Your task to perform on an android device: Turn off the flashlight Image 0: 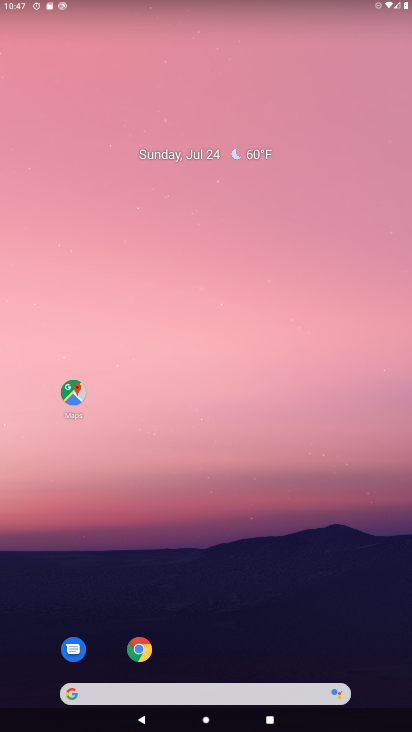
Step 0: drag from (310, 582) to (176, 118)
Your task to perform on an android device: Turn off the flashlight Image 1: 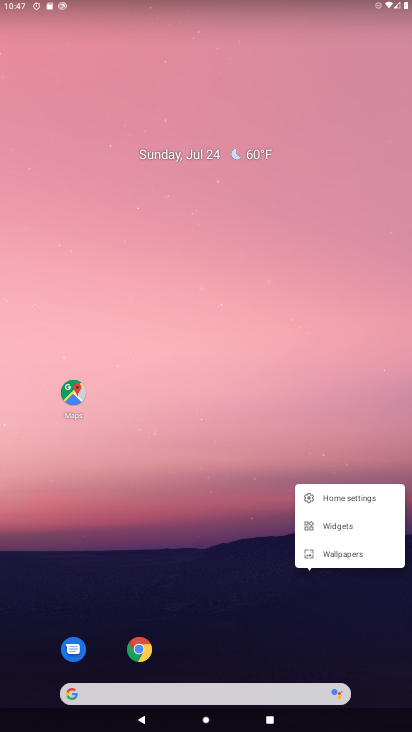
Step 1: click (200, 503)
Your task to perform on an android device: Turn off the flashlight Image 2: 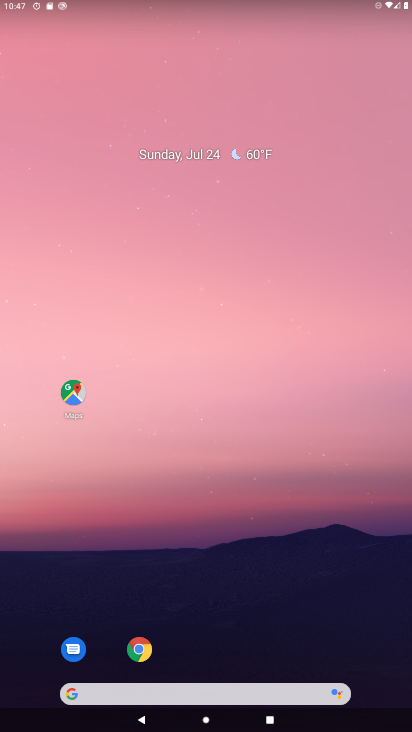
Step 2: click (149, 91)
Your task to perform on an android device: Turn off the flashlight Image 3: 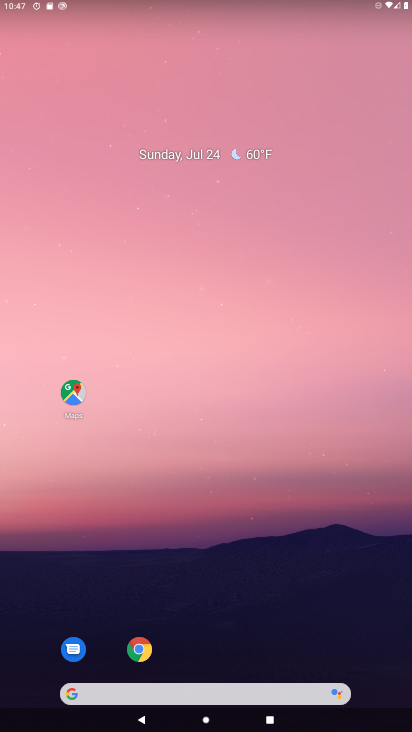
Step 3: drag from (330, 597) to (169, 27)
Your task to perform on an android device: Turn off the flashlight Image 4: 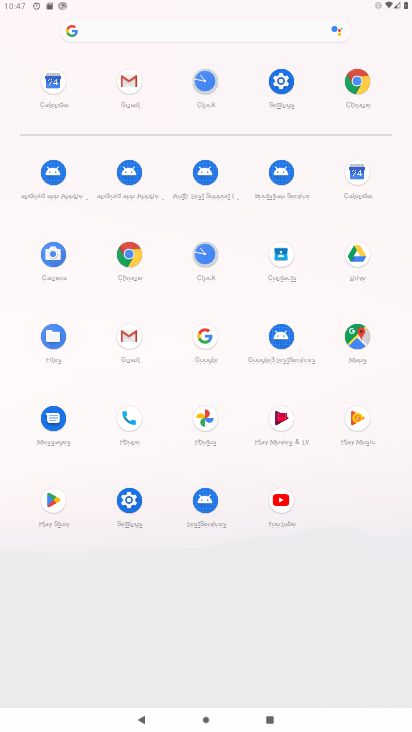
Step 4: click (286, 84)
Your task to perform on an android device: Turn off the flashlight Image 5: 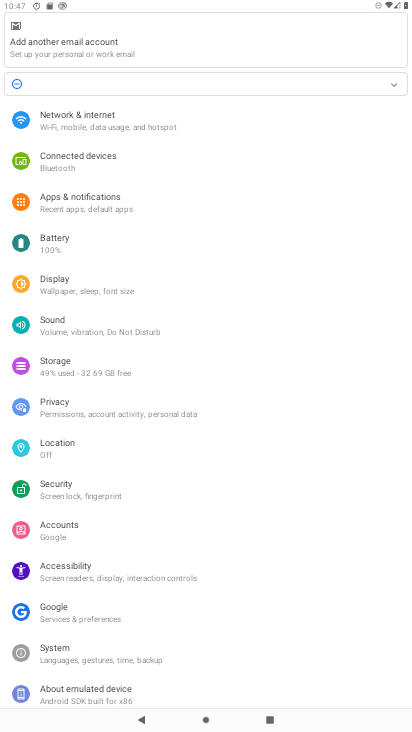
Step 5: click (94, 292)
Your task to perform on an android device: Turn off the flashlight Image 6: 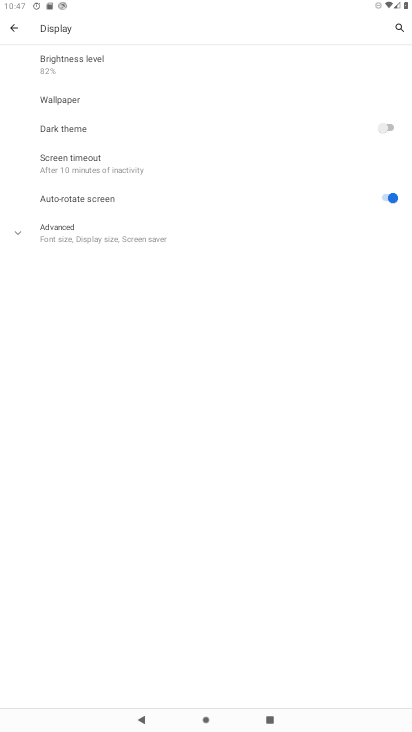
Step 6: click (105, 169)
Your task to perform on an android device: Turn off the flashlight Image 7: 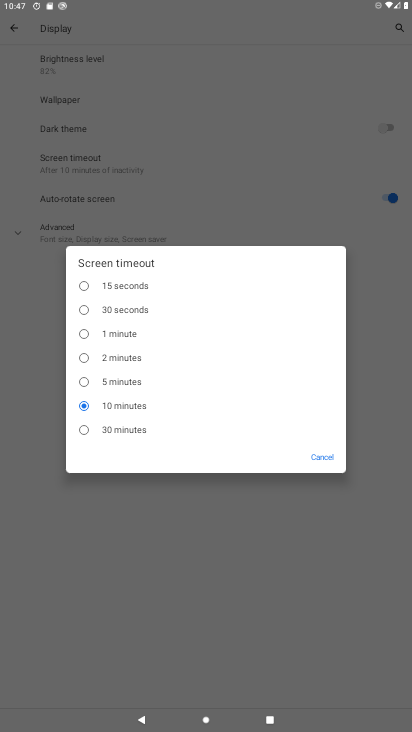
Step 7: click (108, 434)
Your task to perform on an android device: Turn off the flashlight Image 8: 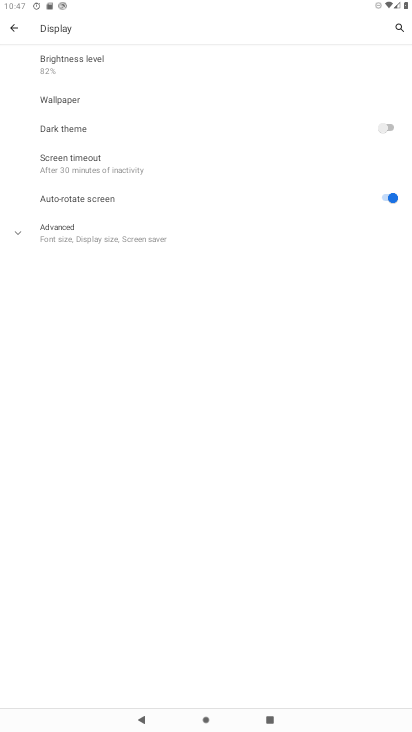
Step 8: task complete